Your task to perform on an android device: turn on bluetooth scan Image 0: 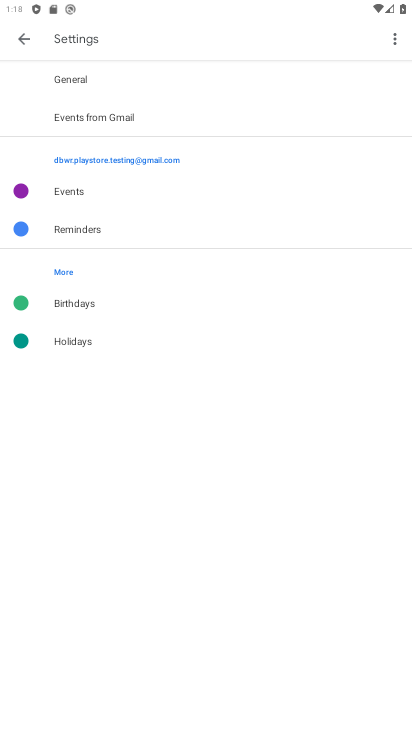
Step 0: press home button
Your task to perform on an android device: turn on bluetooth scan Image 1: 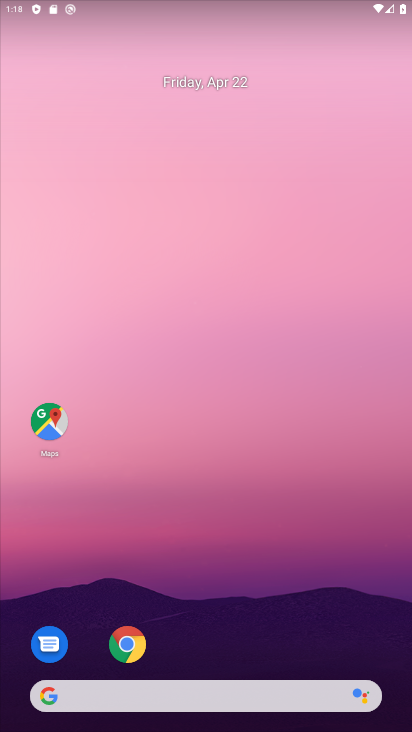
Step 1: drag from (297, 603) to (231, 158)
Your task to perform on an android device: turn on bluetooth scan Image 2: 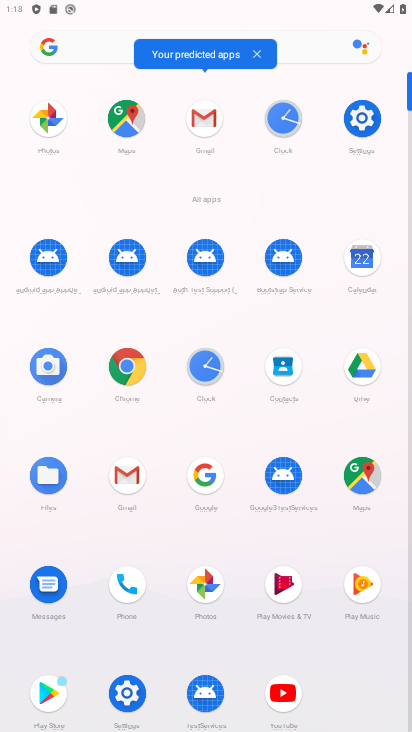
Step 2: click (354, 126)
Your task to perform on an android device: turn on bluetooth scan Image 3: 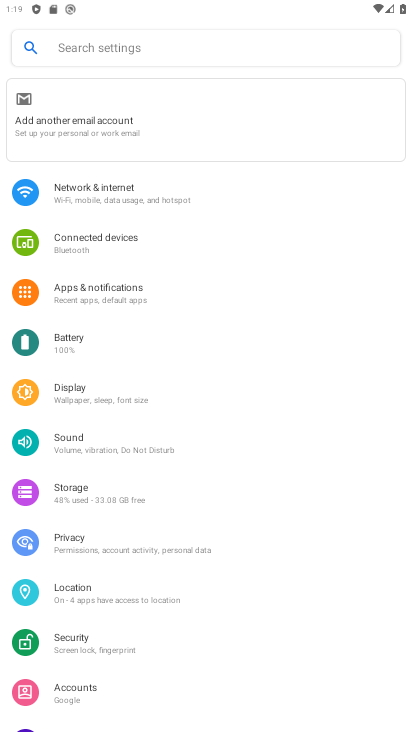
Step 3: click (231, 591)
Your task to perform on an android device: turn on bluetooth scan Image 4: 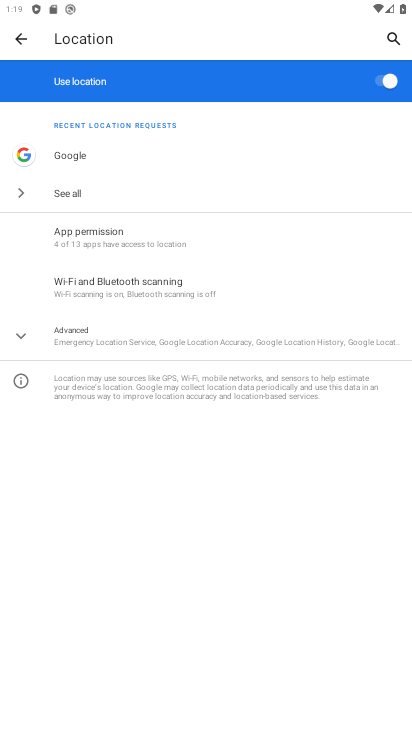
Step 4: click (182, 294)
Your task to perform on an android device: turn on bluetooth scan Image 5: 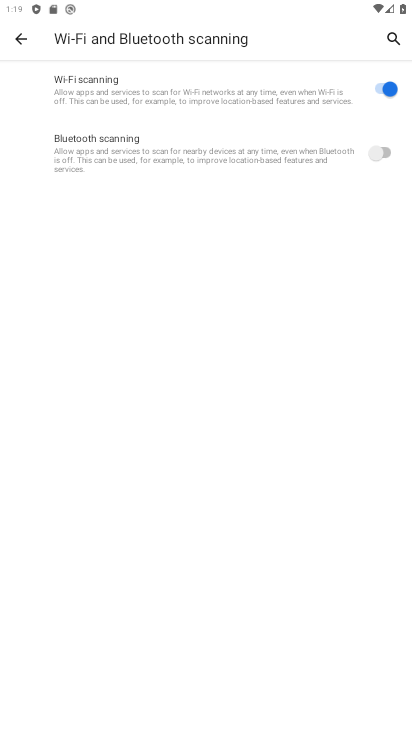
Step 5: click (388, 144)
Your task to perform on an android device: turn on bluetooth scan Image 6: 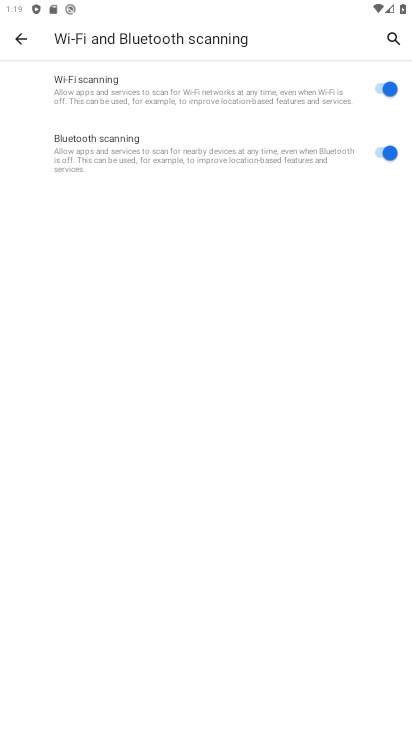
Step 6: task complete